Your task to perform on an android device: Open CNN.com Image 0: 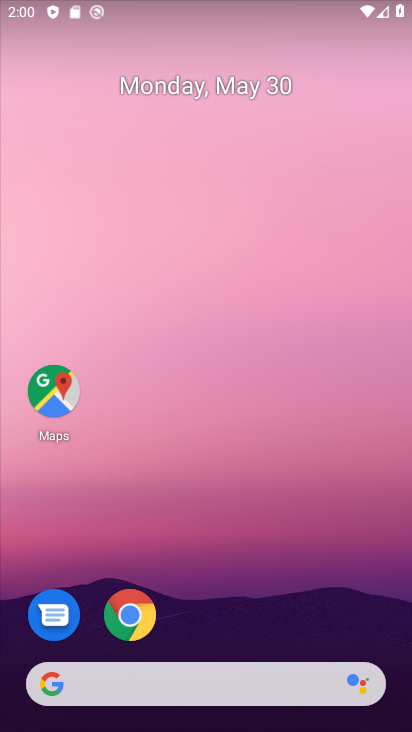
Step 0: click (220, 686)
Your task to perform on an android device: Open CNN.com Image 1: 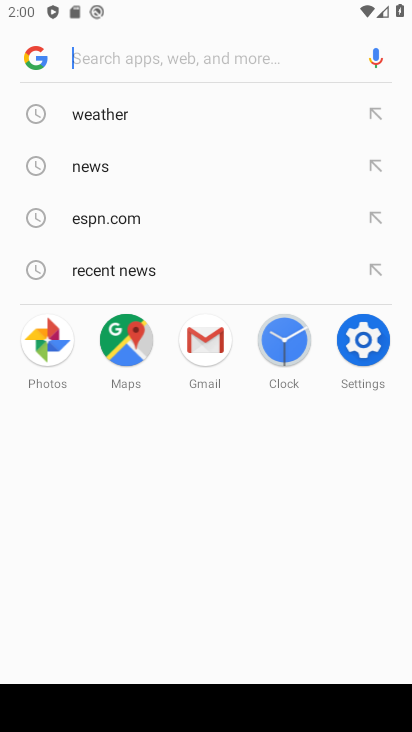
Step 1: type "cnn.com"
Your task to perform on an android device: Open CNN.com Image 2: 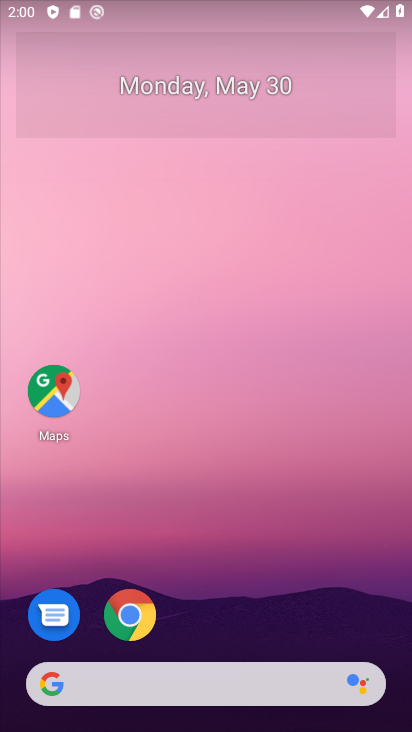
Step 2: click (269, 691)
Your task to perform on an android device: Open CNN.com Image 3: 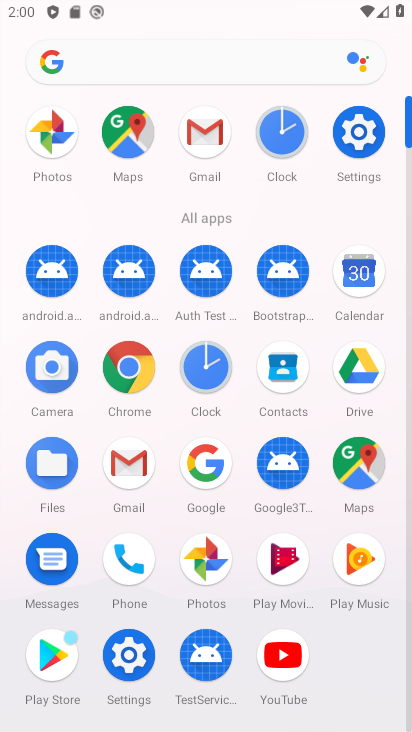
Step 3: type "cnn.com"
Your task to perform on an android device: Open CNN.com Image 4: 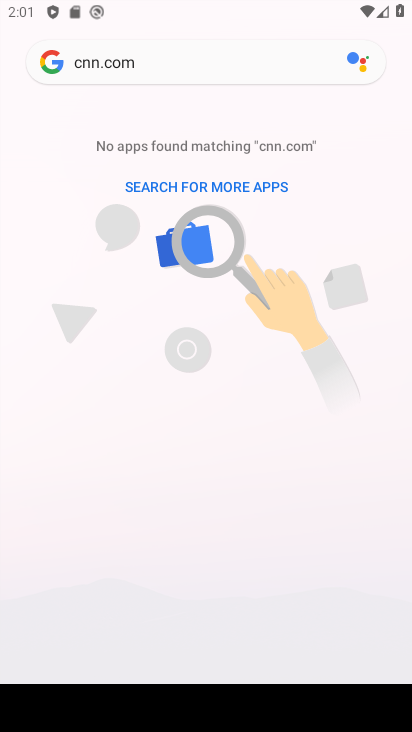
Step 4: press back button
Your task to perform on an android device: Open CNN.com Image 5: 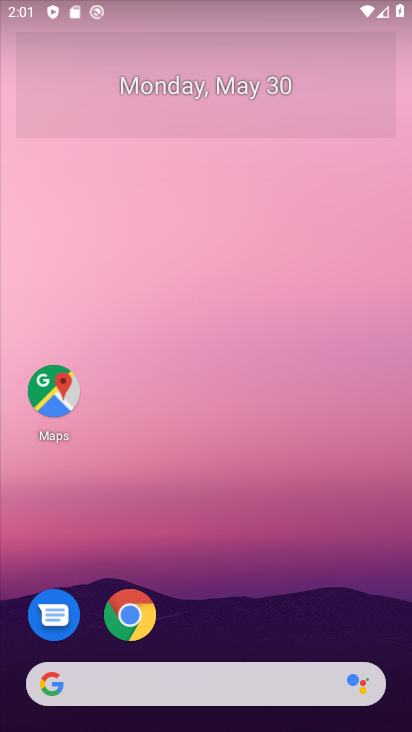
Step 5: click (214, 685)
Your task to perform on an android device: Open CNN.com Image 6: 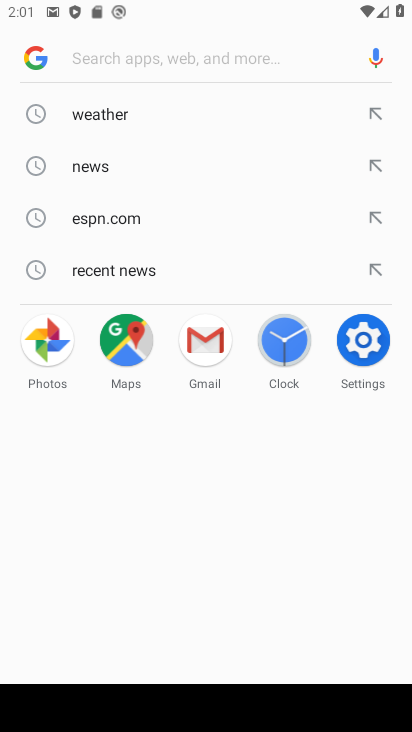
Step 6: type "cnn.com"
Your task to perform on an android device: Open CNN.com Image 7: 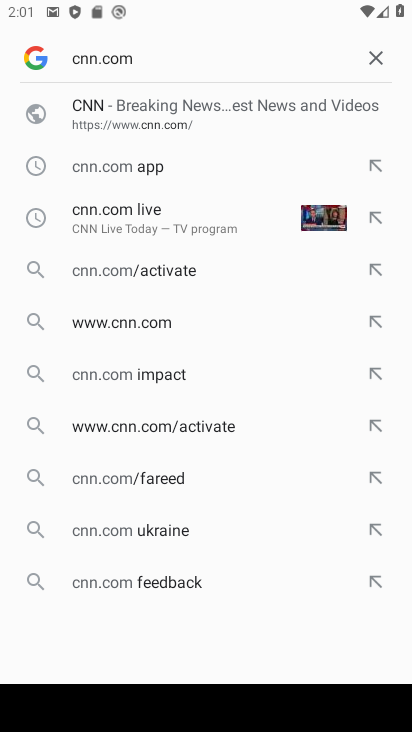
Step 7: click (109, 110)
Your task to perform on an android device: Open CNN.com Image 8: 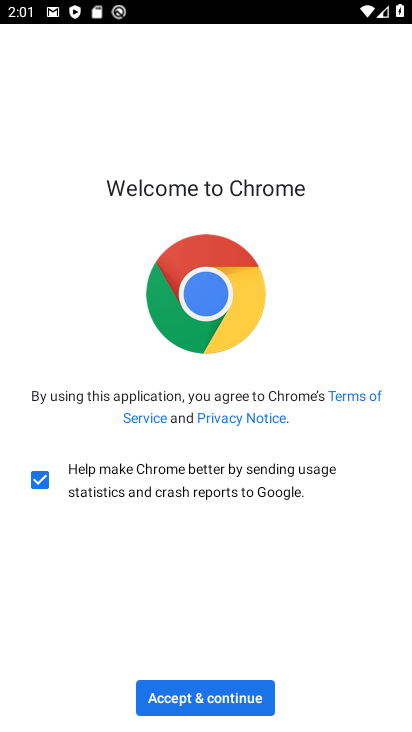
Step 8: click (238, 695)
Your task to perform on an android device: Open CNN.com Image 9: 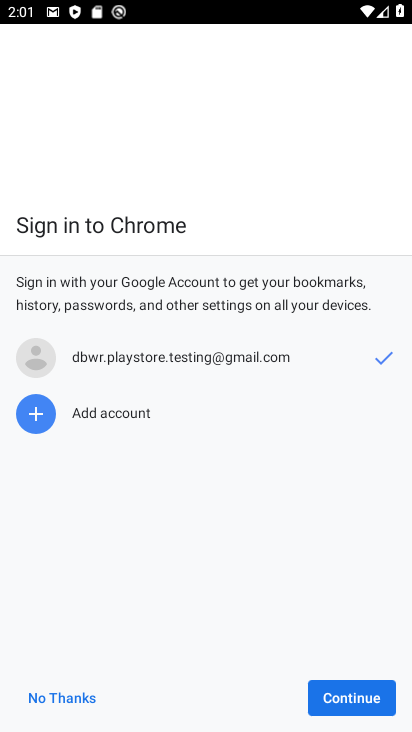
Step 9: click (327, 692)
Your task to perform on an android device: Open CNN.com Image 10: 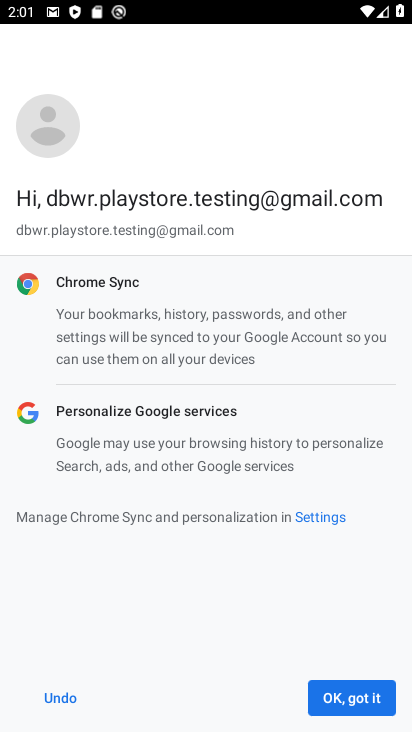
Step 10: click (327, 690)
Your task to perform on an android device: Open CNN.com Image 11: 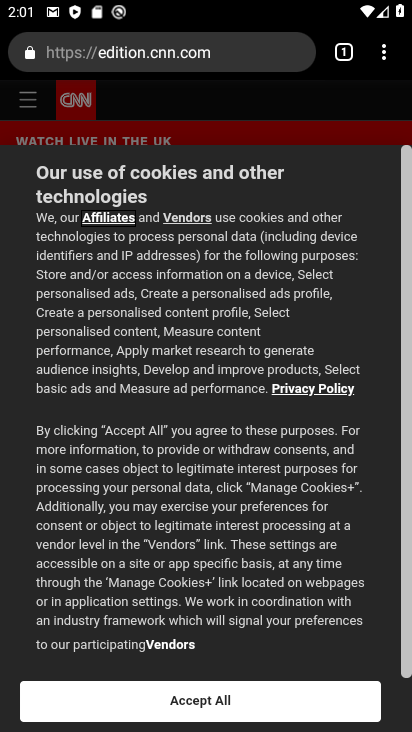
Step 11: click (327, 689)
Your task to perform on an android device: Open CNN.com Image 12: 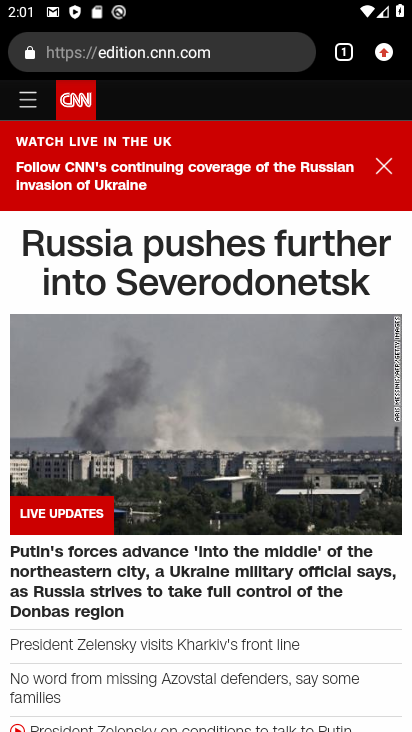
Step 12: task complete